Your task to perform on an android device: open app "Indeed Job Search" Image 0: 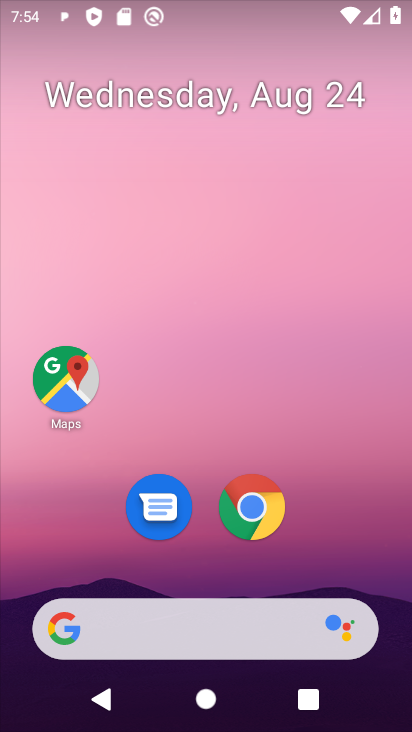
Step 0: press home button
Your task to perform on an android device: open app "Indeed Job Search" Image 1: 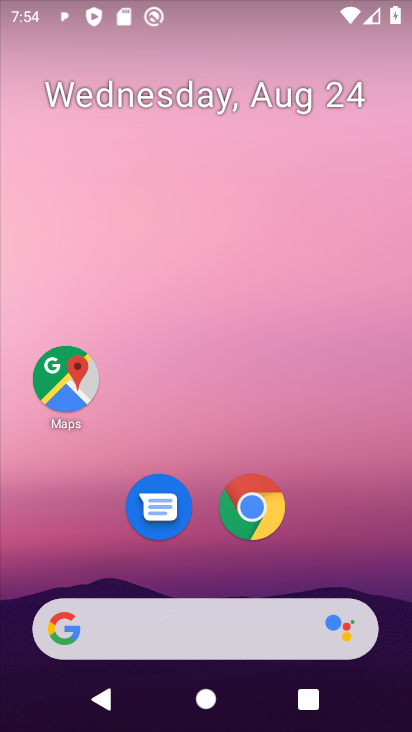
Step 1: drag from (355, 564) to (379, 123)
Your task to perform on an android device: open app "Indeed Job Search" Image 2: 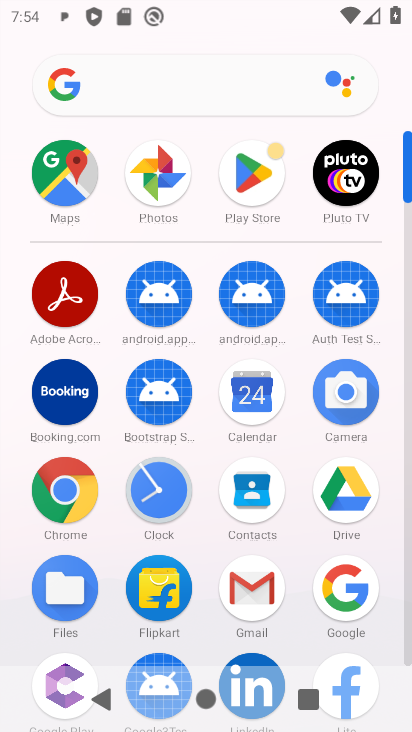
Step 2: click (253, 180)
Your task to perform on an android device: open app "Indeed Job Search" Image 3: 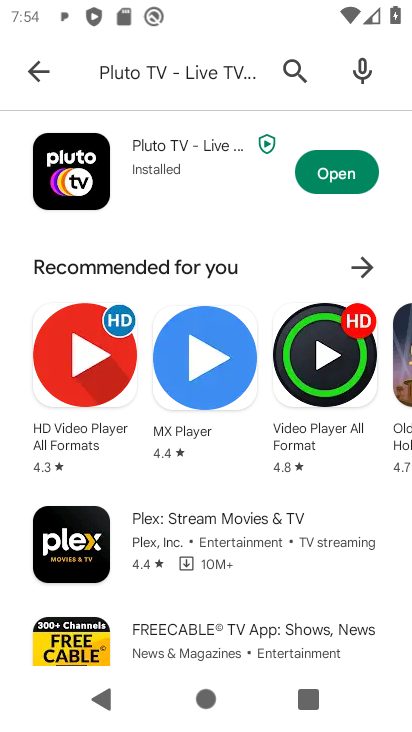
Step 3: press back button
Your task to perform on an android device: open app "Indeed Job Search" Image 4: 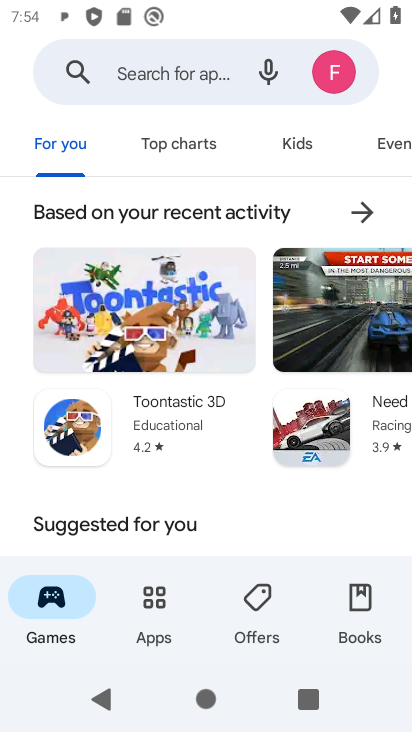
Step 4: click (183, 79)
Your task to perform on an android device: open app "Indeed Job Search" Image 5: 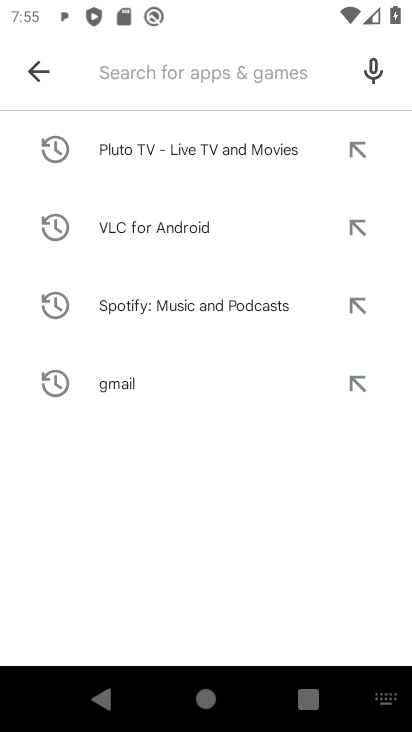
Step 5: type "Indeed Job Search"
Your task to perform on an android device: open app "Indeed Job Search" Image 6: 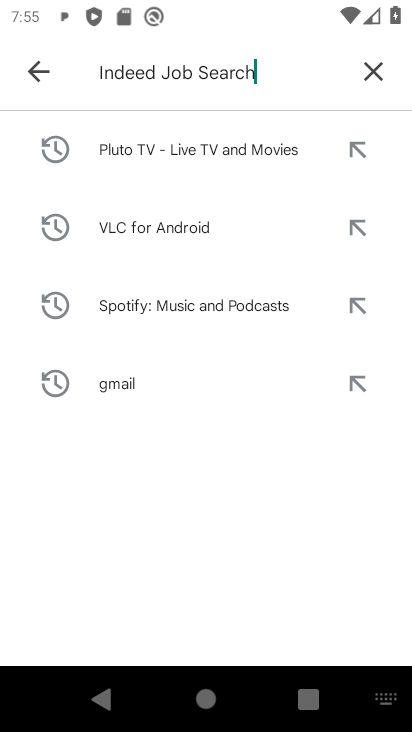
Step 6: press enter
Your task to perform on an android device: open app "Indeed Job Search" Image 7: 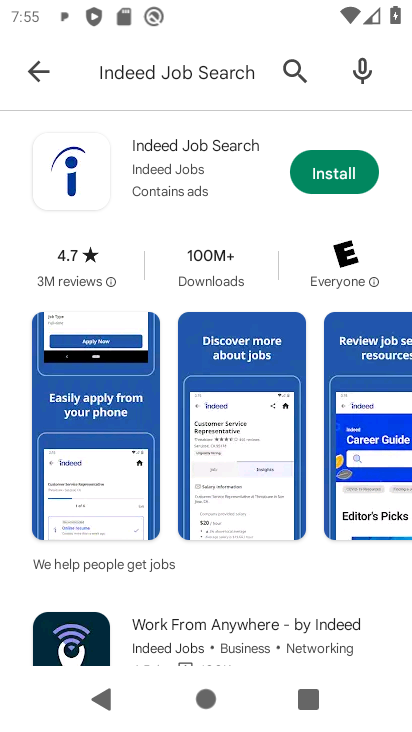
Step 7: task complete